Your task to perform on an android device: allow cookies in the chrome app Image 0: 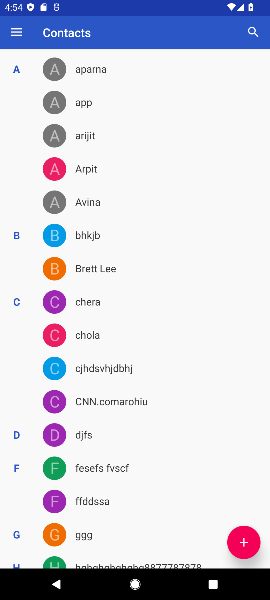
Step 0: press home button
Your task to perform on an android device: allow cookies in the chrome app Image 1: 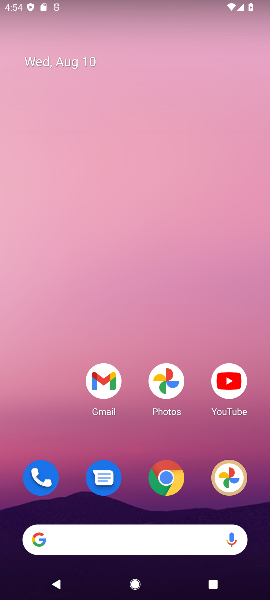
Step 1: click (153, 476)
Your task to perform on an android device: allow cookies in the chrome app Image 2: 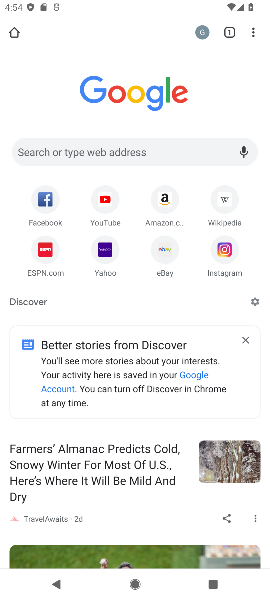
Step 2: click (251, 33)
Your task to perform on an android device: allow cookies in the chrome app Image 3: 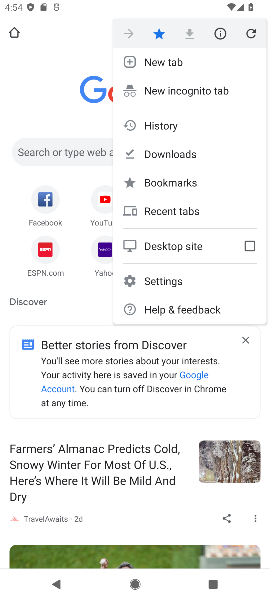
Step 3: click (159, 284)
Your task to perform on an android device: allow cookies in the chrome app Image 4: 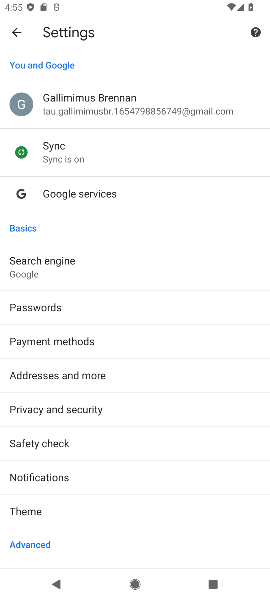
Step 4: drag from (101, 469) to (90, 250)
Your task to perform on an android device: allow cookies in the chrome app Image 5: 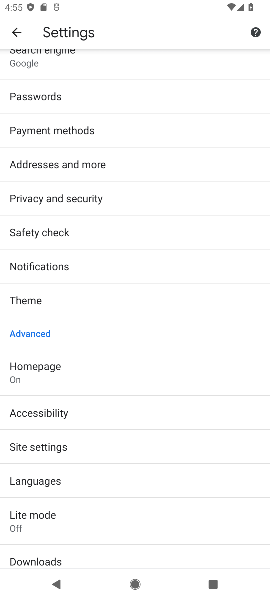
Step 5: click (40, 446)
Your task to perform on an android device: allow cookies in the chrome app Image 6: 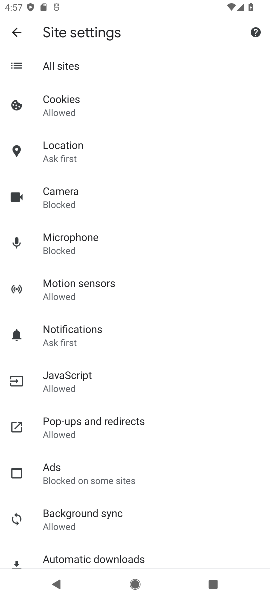
Step 6: task complete